Your task to perform on an android device: Open Chrome and go to the settings page Image 0: 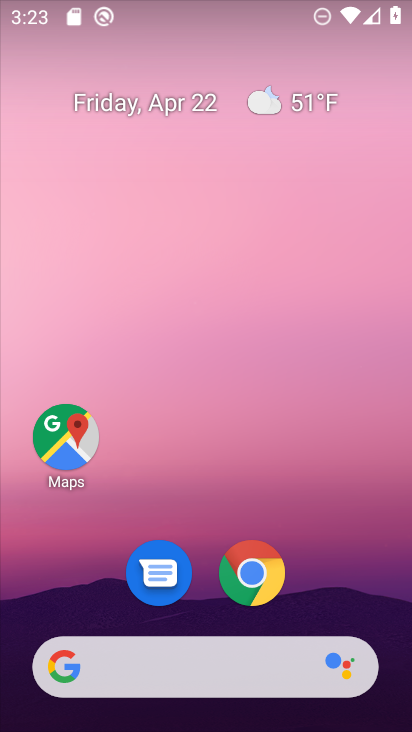
Step 0: click (265, 571)
Your task to perform on an android device: Open Chrome and go to the settings page Image 1: 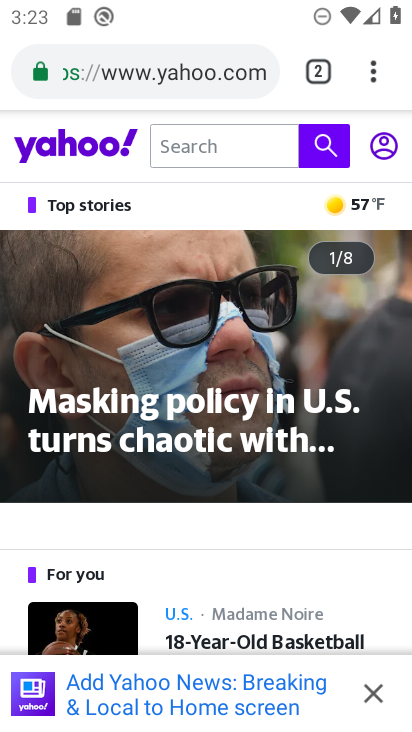
Step 1: click (369, 70)
Your task to perform on an android device: Open Chrome and go to the settings page Image 2: 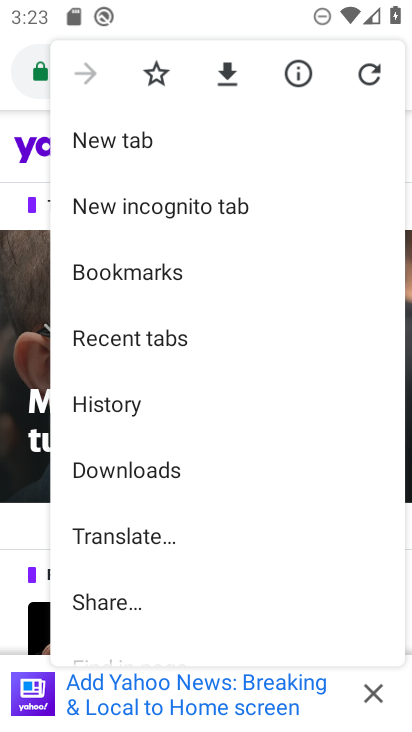
Step 2: drag from (211, 595) to (206, 185)
Your task to perform on an android device: Open Chrome and go to the settings page Image 3: 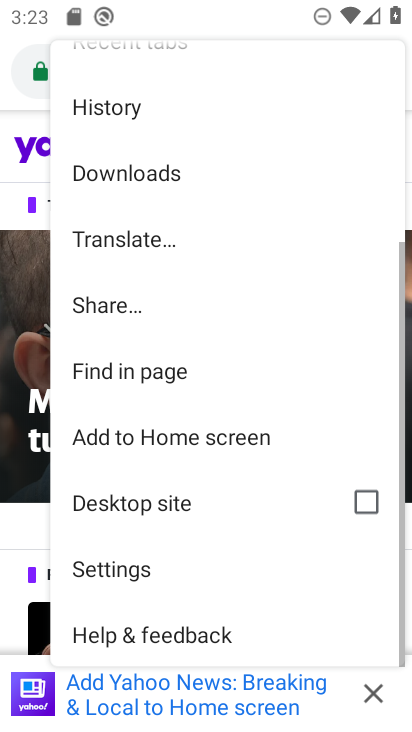
Step 3: click (131, 557)
Your task to perform on an android device: Open Chrome and go to the settings page Image 4: 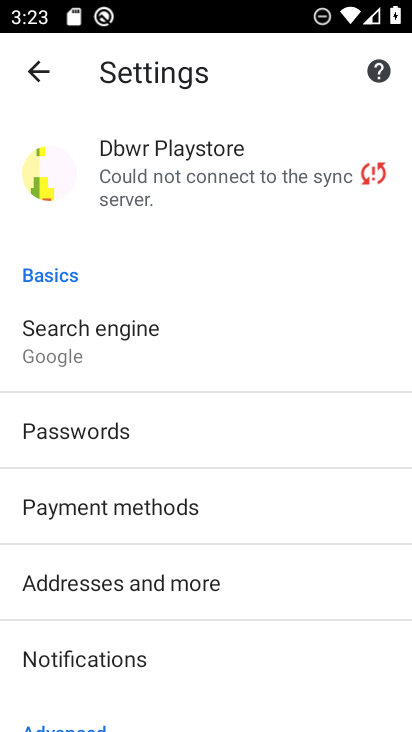
Step 4: task complete